Your task to perform on an android device: turn off priority inbox in the gmail app Image 0: 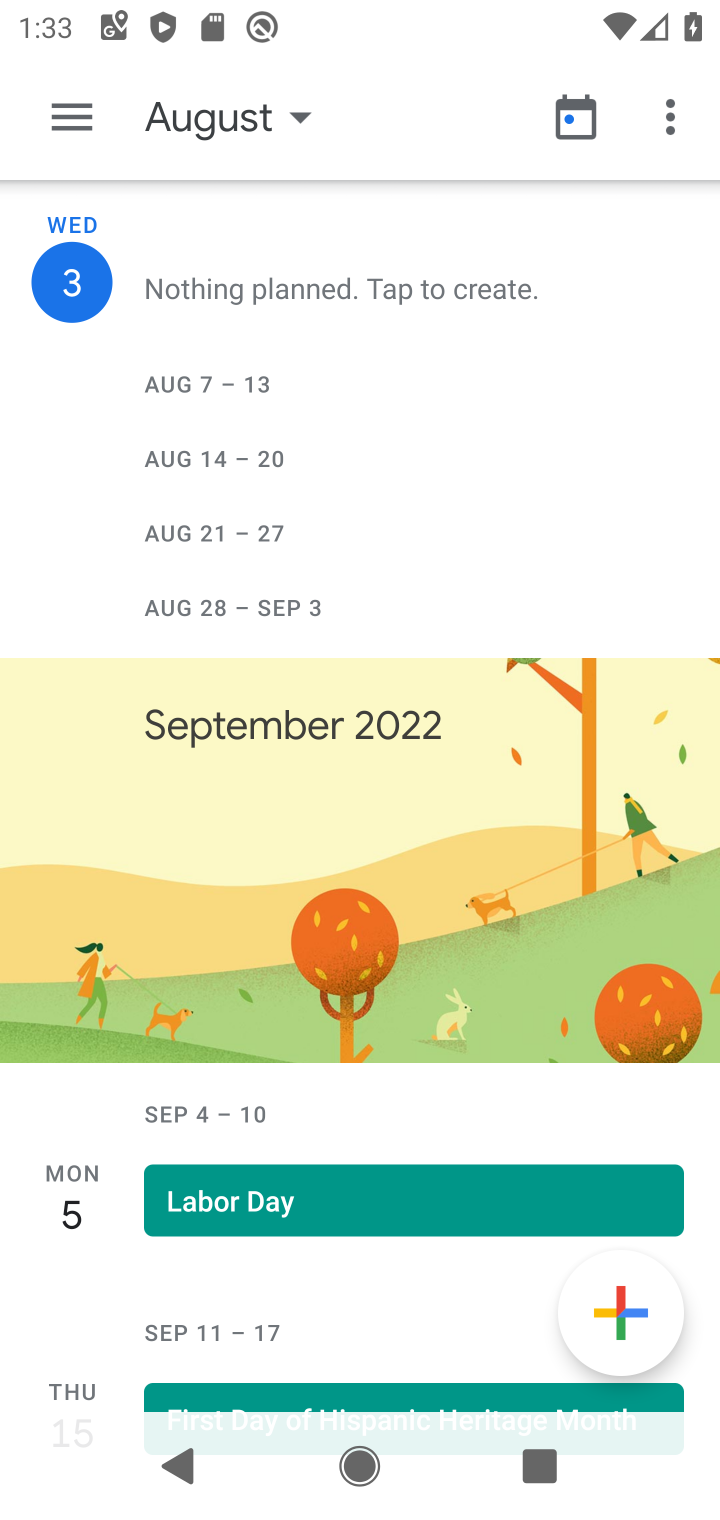
Step 0: press home button
Your task to perform on an android device: turn off priority inbox in the gmail app Image 1: 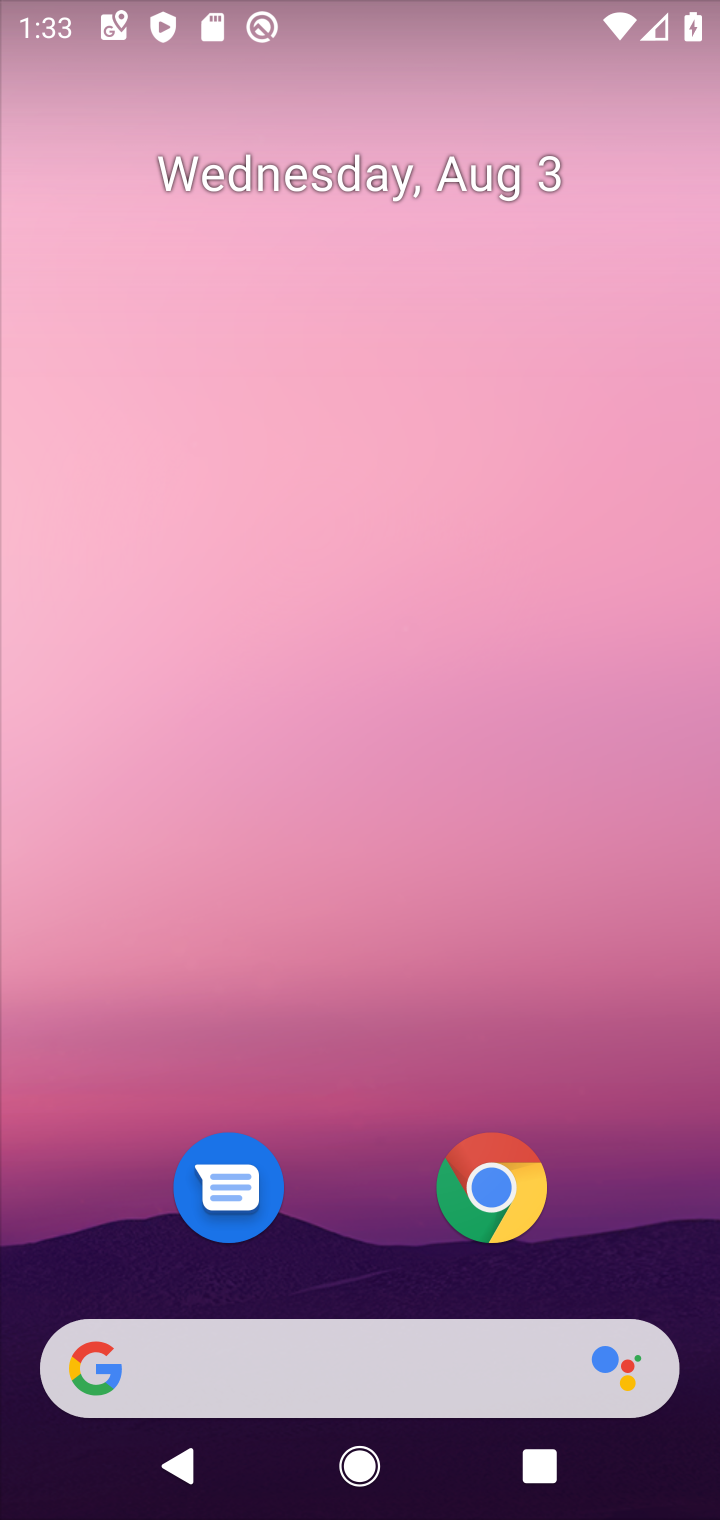
Step 1: drag from (385, 1027) to (469, 49)
Your task to perform on an android device: turn off priority inbox in the gmail app Image 2: 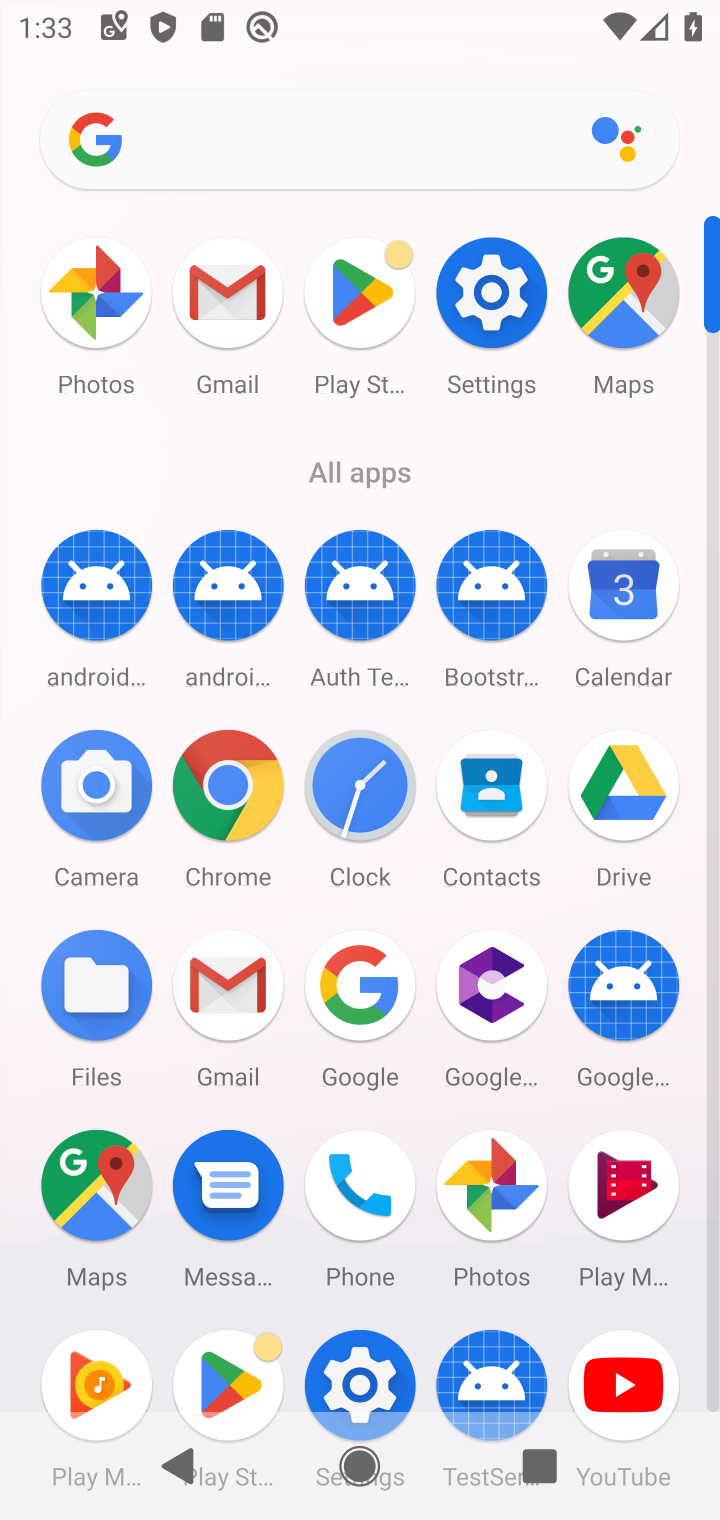
Step 2: click (226, 295)
Your task to perform on an android device: turn off priority inbox in the gmail app Image 3: 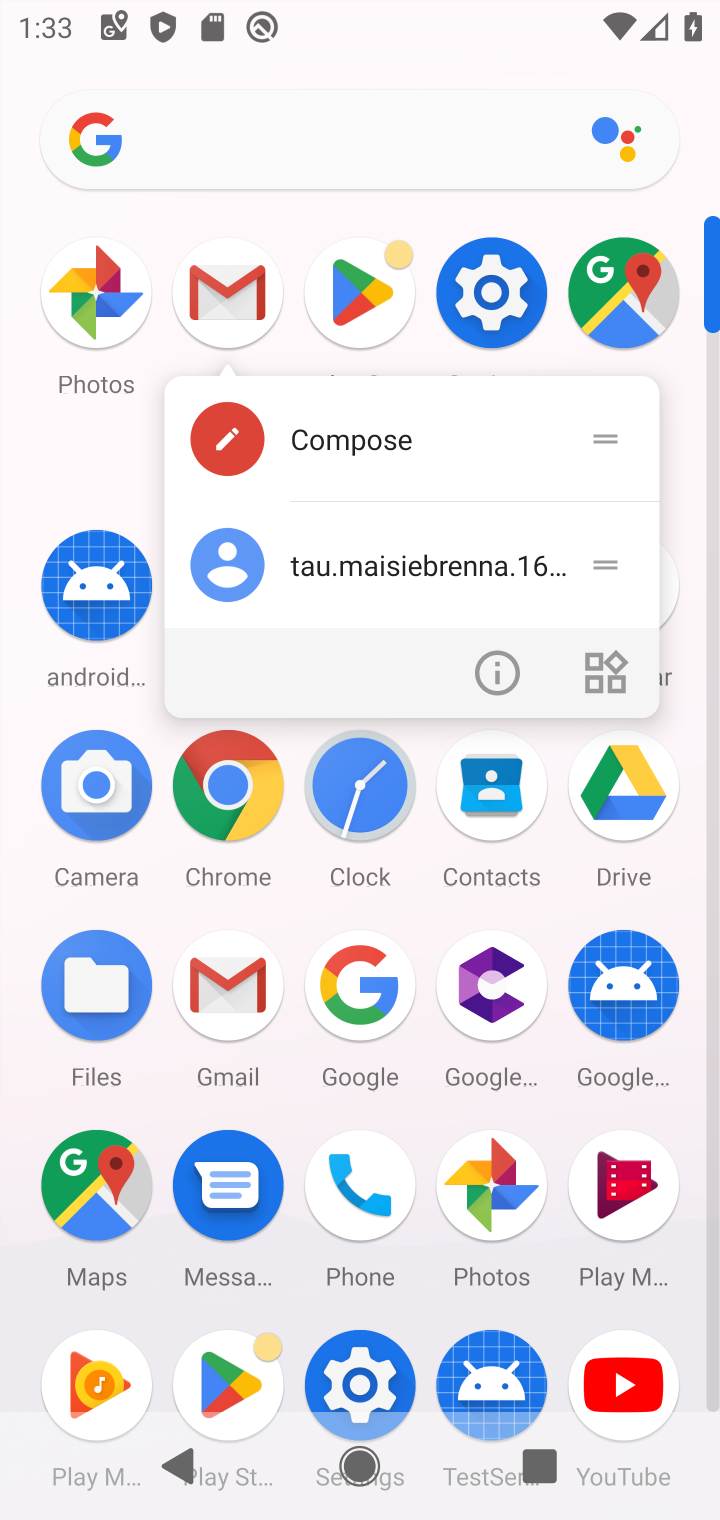
Step 3: click (226, 298)
Your task to perform on an android device: turn off priority inbox in the gmail app Image 4: 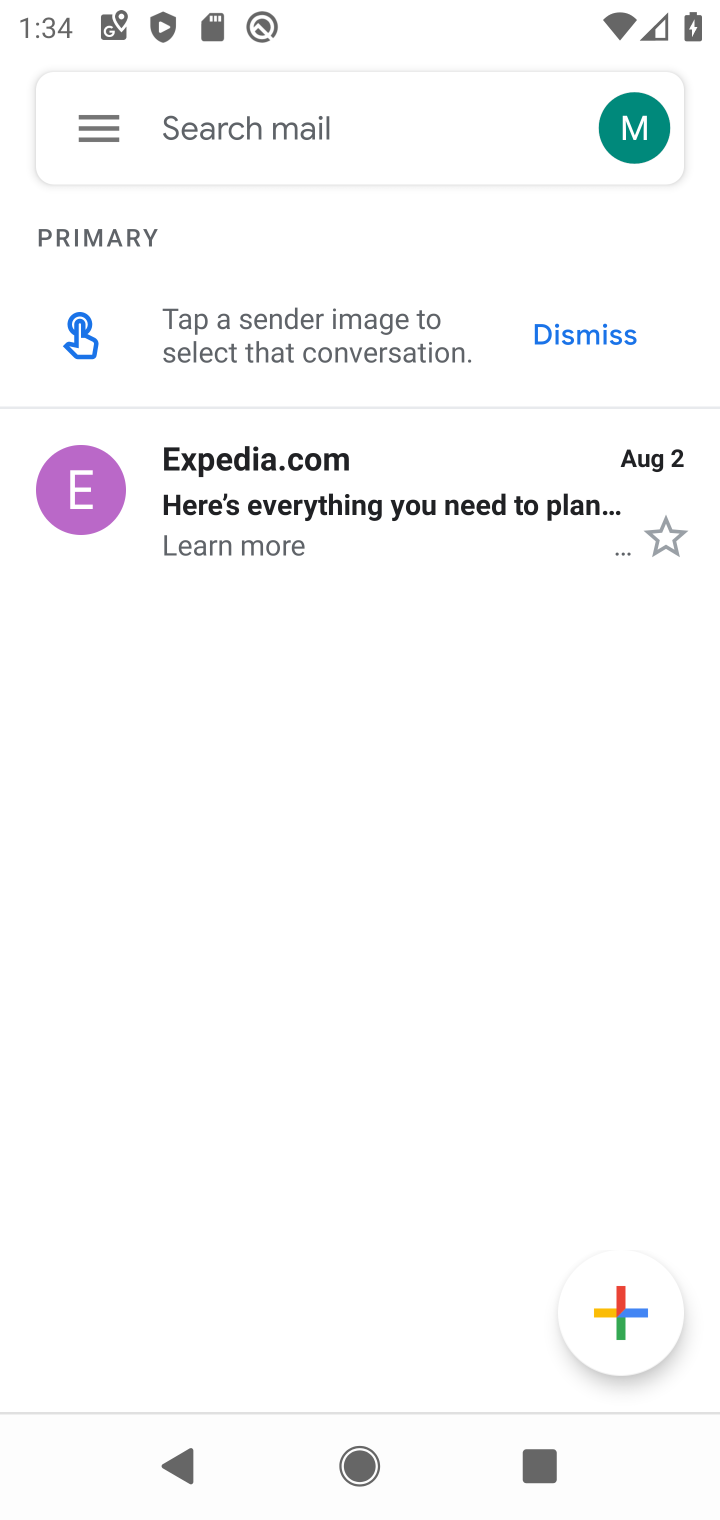
Step 4: click (88, 122)
Your task to perform on an android device: turn off priority inbox in the gmail app Image 5: 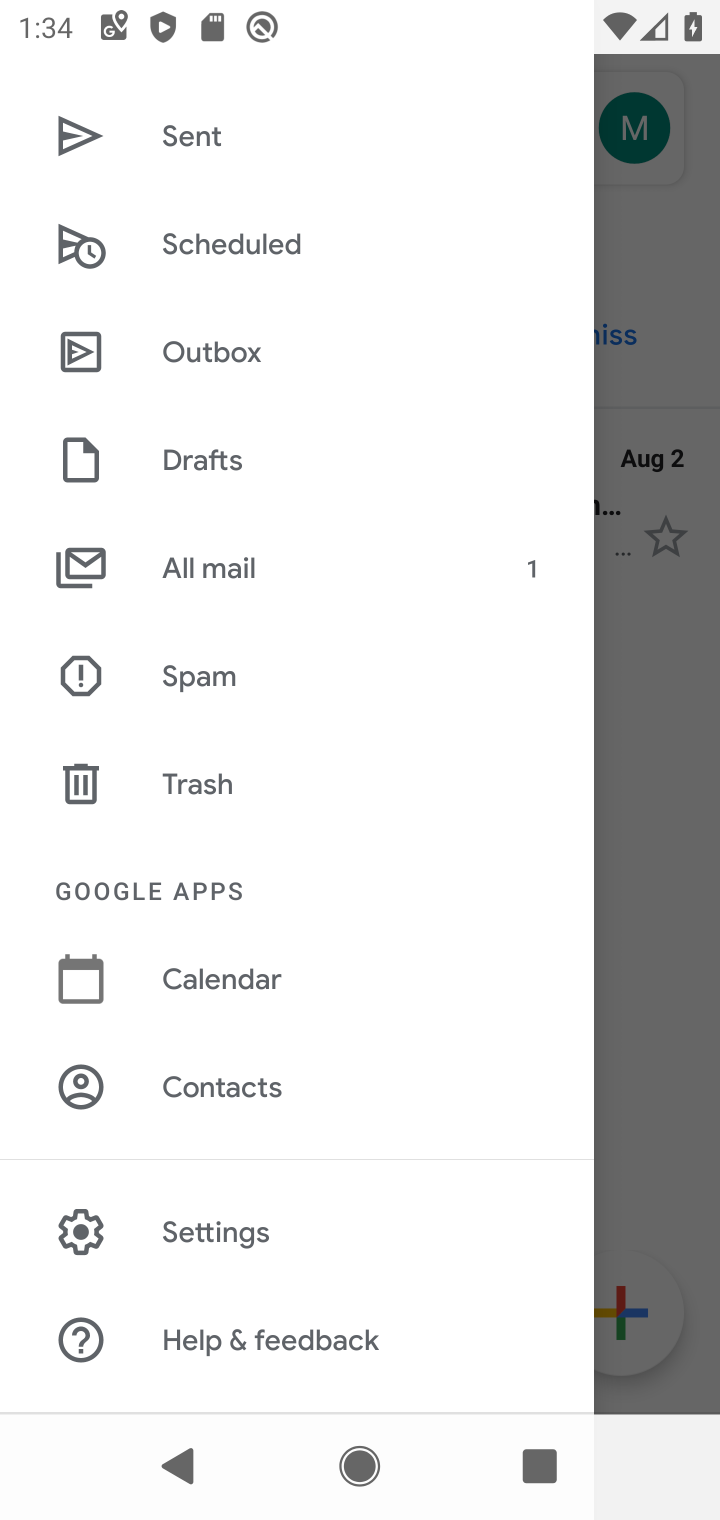
Step 5: click (221, 1227)
Your task to perform on an android device: turn off priority inbox in the gmail app Image 6: 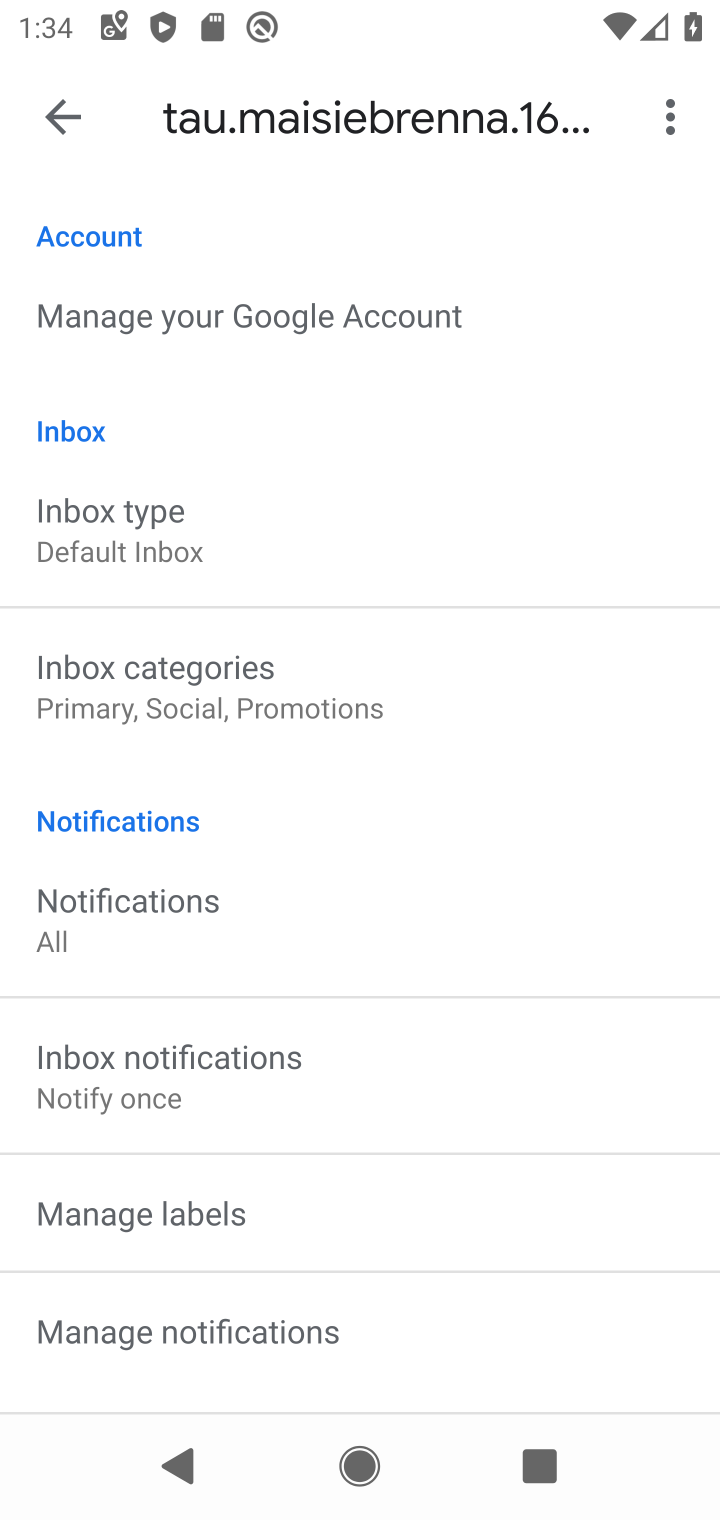
Step 6: click (132, 488)
Your task to perform on an android device: turn off priority inbox in the gmail app Image 7: 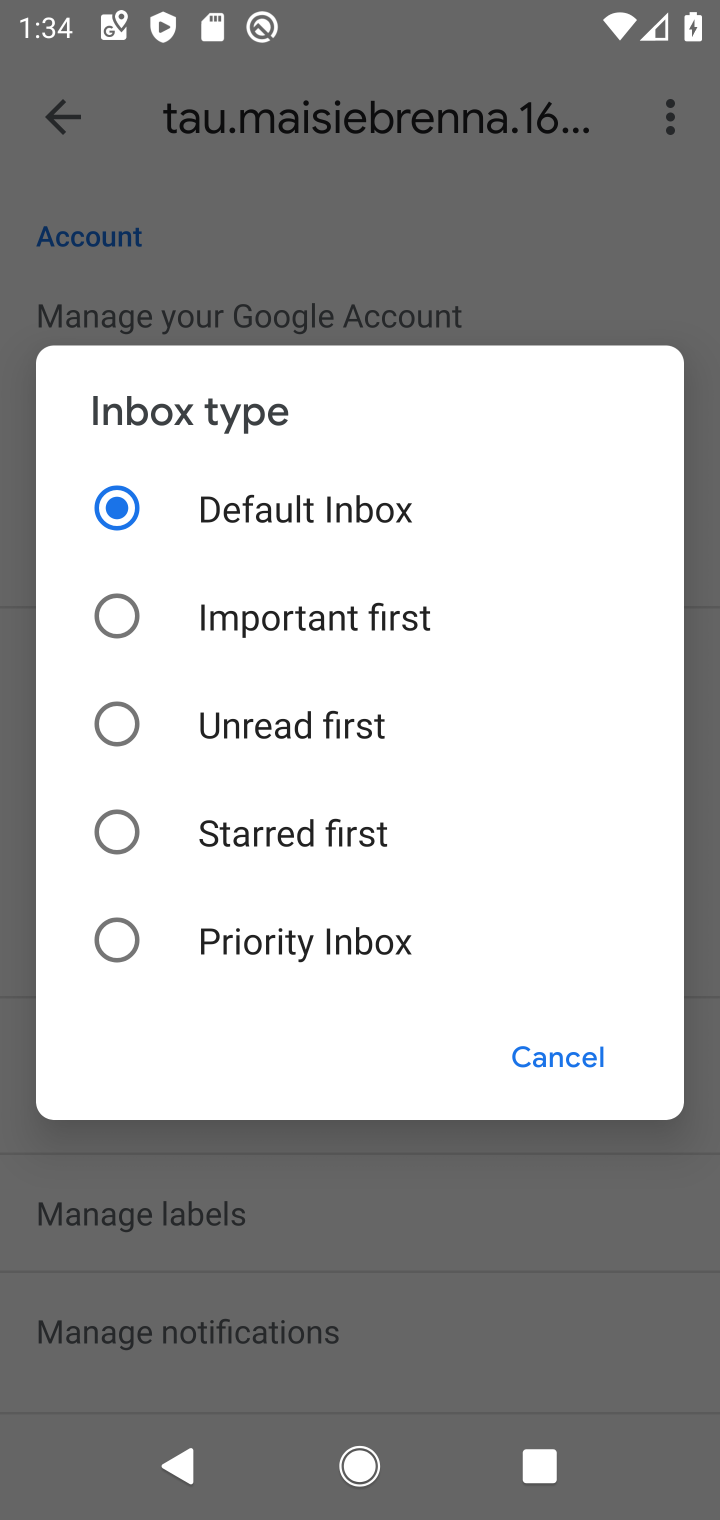
Step 7: click (559, 1060)
Your task to perform on an android device: turn off priority inbox in the gmail app Image 8: 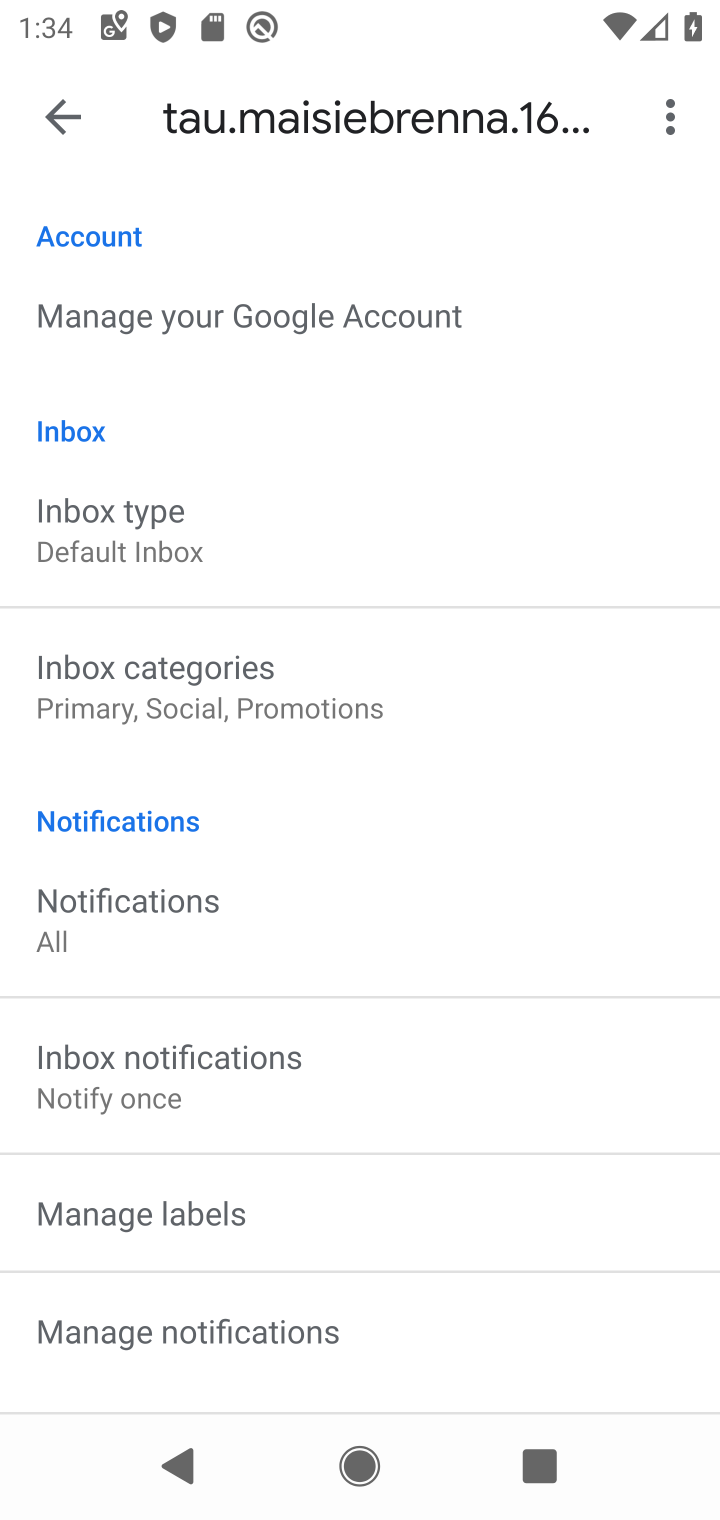
Step 8: task complete